Your task to perform on an android device: set default search engine in the chrome app Image 0: 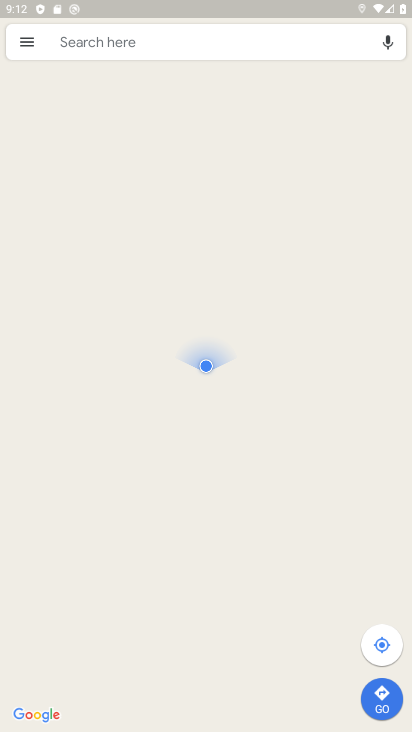
Step 0: press home button
Your task to perform on an android device: set default search engine in the chrome app Image 1: 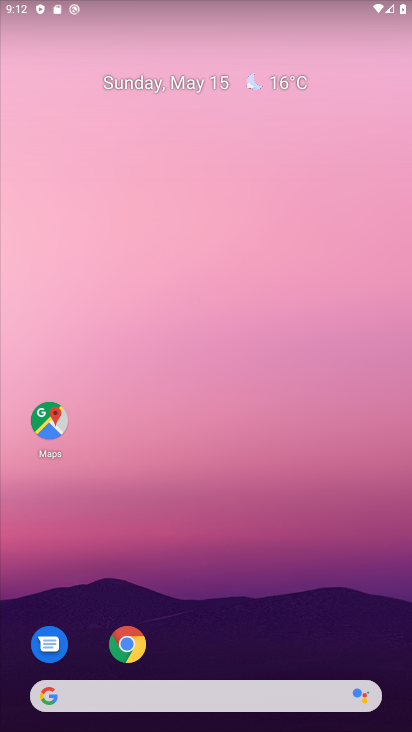
Step 1: click (122, 651)
Your task to perform on an android device: set default search engine in the chrome app Image 2: 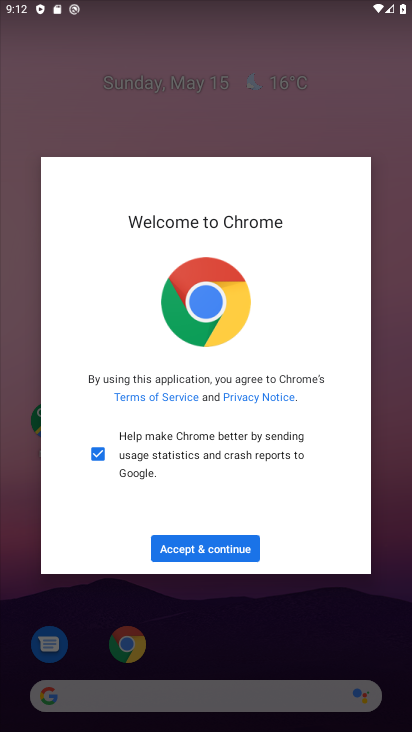
Step 2: click (212, 549)
Your task to perform on an android device: set default search engine in the chrome app Image 3: 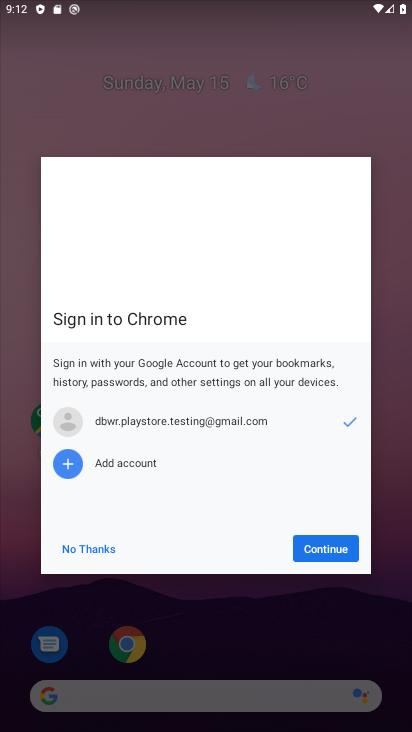
Step 3: click (319, 557)
Your task to perform on an android device: set default search engine in the chrome app Image 4: 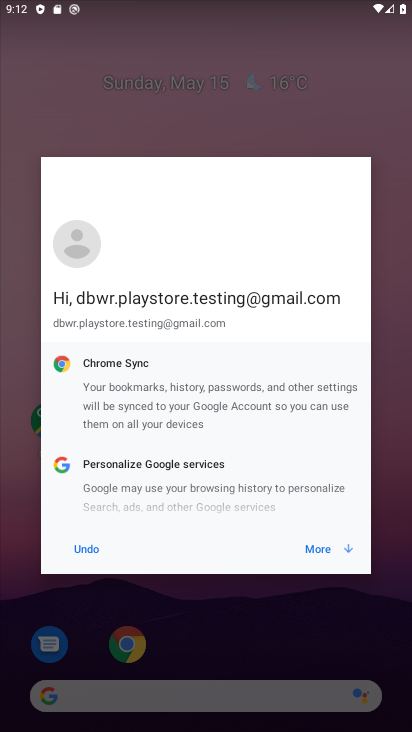
Step 4: click (306, 546)
Your task to perform on an android device: set default search engine in the chrome app Image 5: 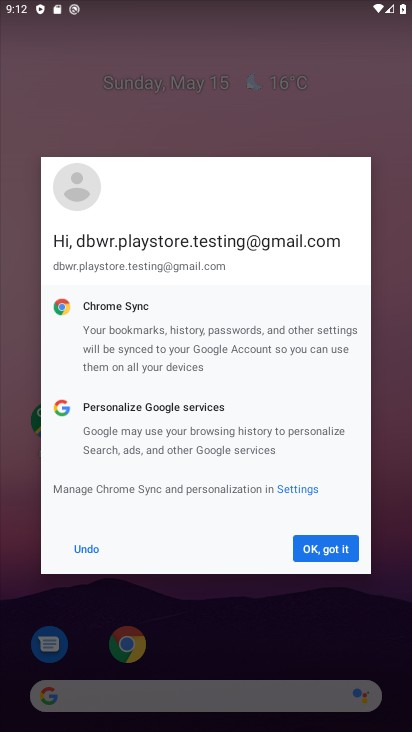
Step 5: click (307, 548)
Your task to perform on an android device: set default search engine in the chrome app Image 6: 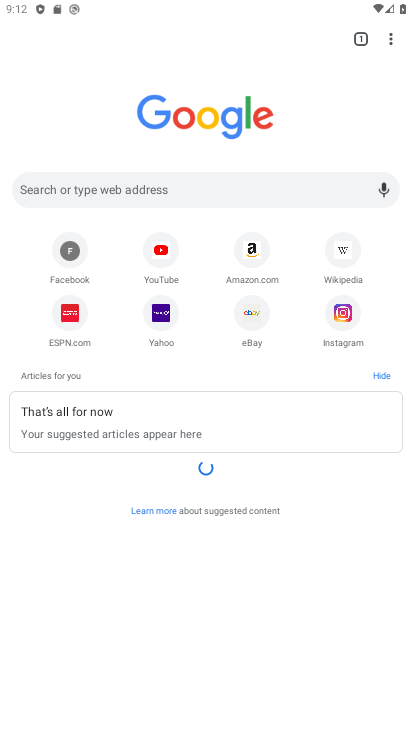
Step 6: click (392, 42)
Your task to perform on an android device: set default search engine in the chrome app Image 7: 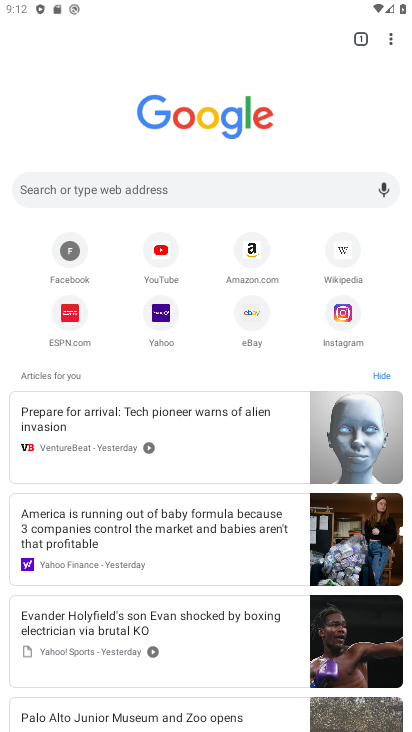
Step 7: click (389, 34)
Your task to perform on an android device: set default search engine in the chrome app Image 8: 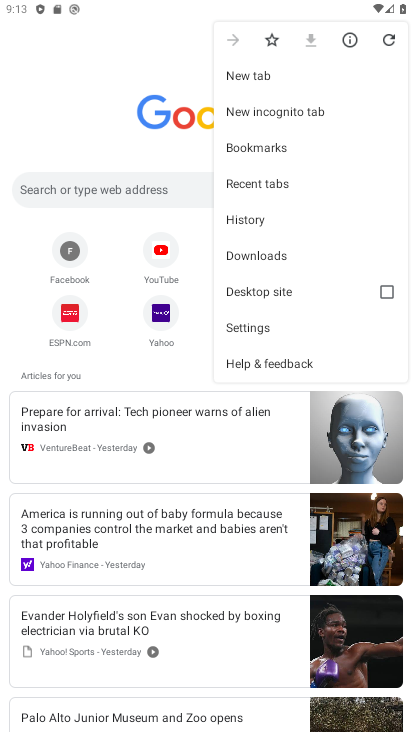
Step 8: click (263, 324)
Your task to perform on an android device: set default search engine in the chrome app Image 9: 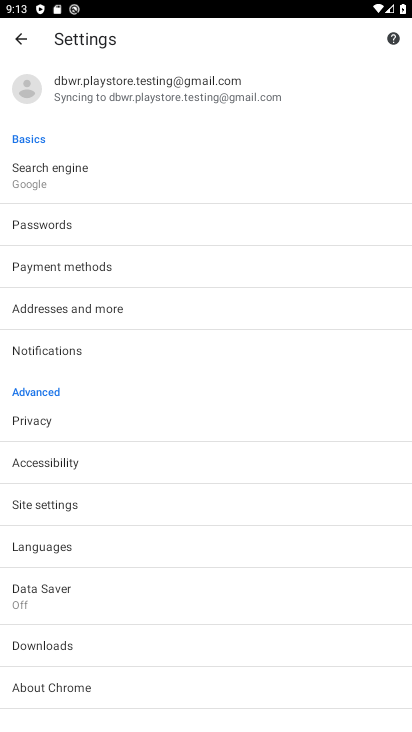
Step 9: click (69, 178)
Your task to perform on an android device: set default search engine in the chrome app Image 10: 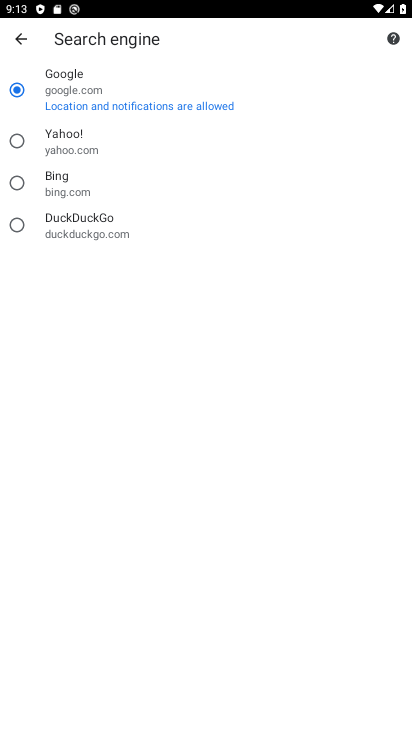
Step 10: task complete